Your task to perform on an android device: open device folders in google photos Image 0: 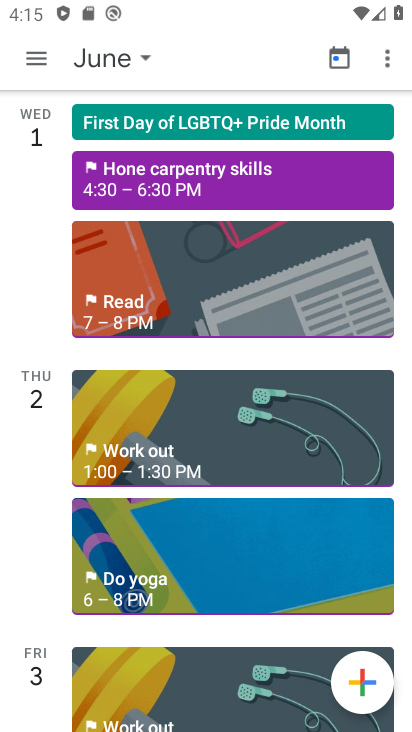
Step 0: press back button
Your task to perform on an android device: open device folders in google photos Image 1: 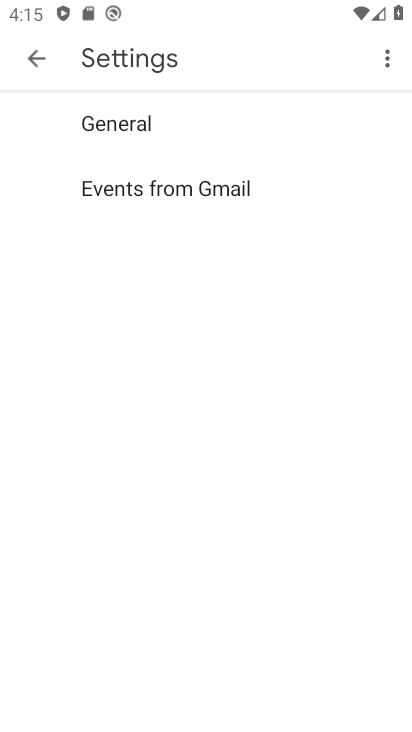
Step 1: press back button
Your task to perform on an android device: open device folders in google photos Image 2: 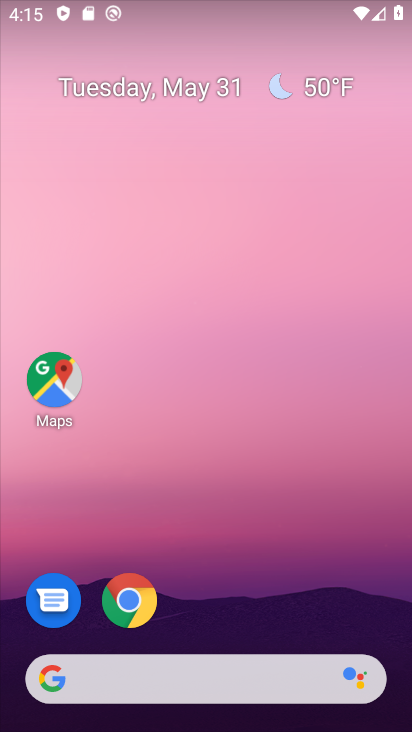
Step 2: drag from (252, 587) to (205, 123)
Your task to perform on an android device: open device folders in google photos Image 3: 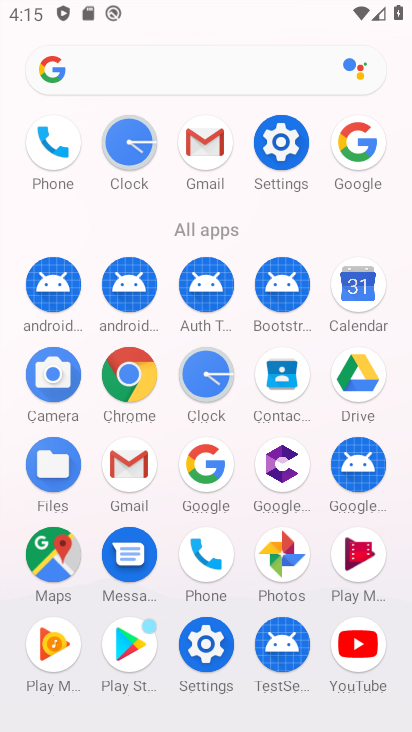
Step 3: click (283, 552)
Your task to perform on an android device: open device folders in google photos Image 4: 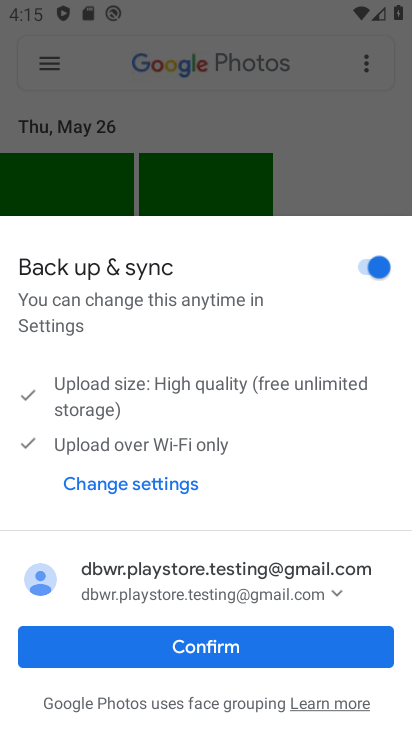
Step 4: click (201, 646)
Your task to perform on an android device: open device folders in google photos Image 5: 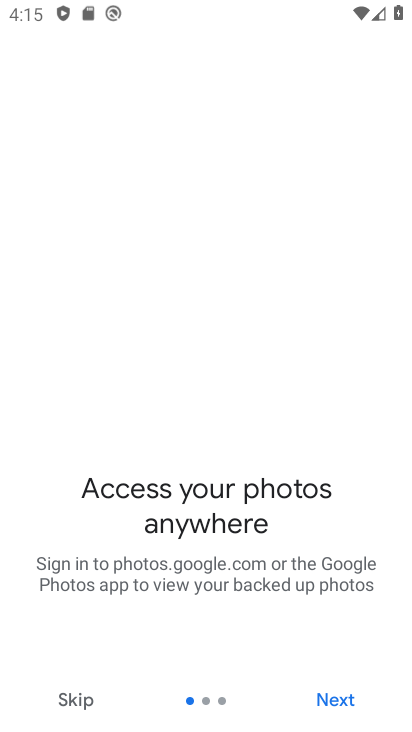
Step 5: click (343, 699)
Your task to perform on an android device: open device folders in google photos Image 6: 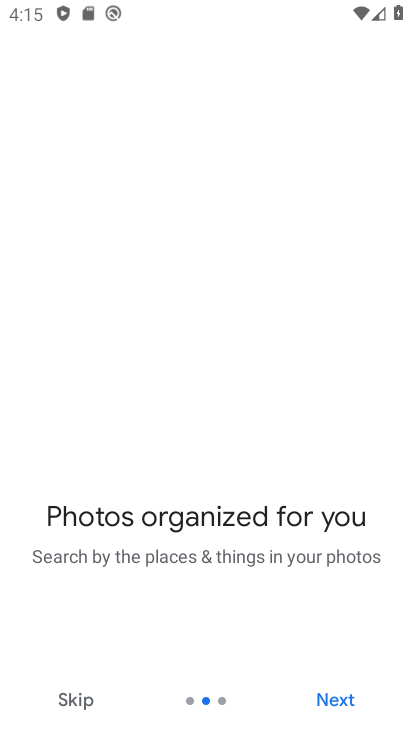
Step 6: click (343, 699)
Your task to perform on an android device: open device folders in google photos Image 7: 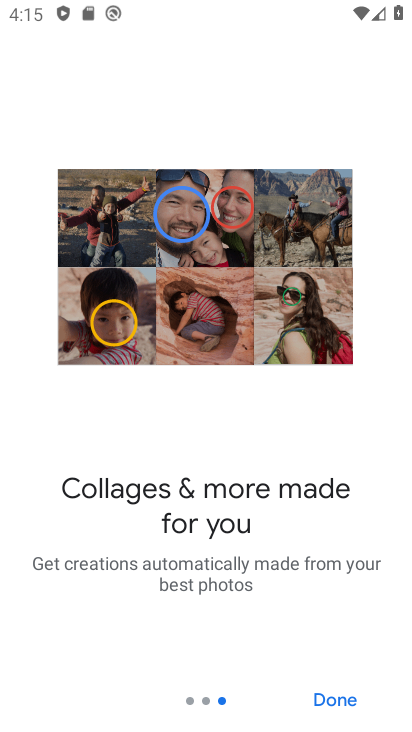
Step 7: click (343, 699)
Your task to perform on an android device: open device folders in google photos Image 8: 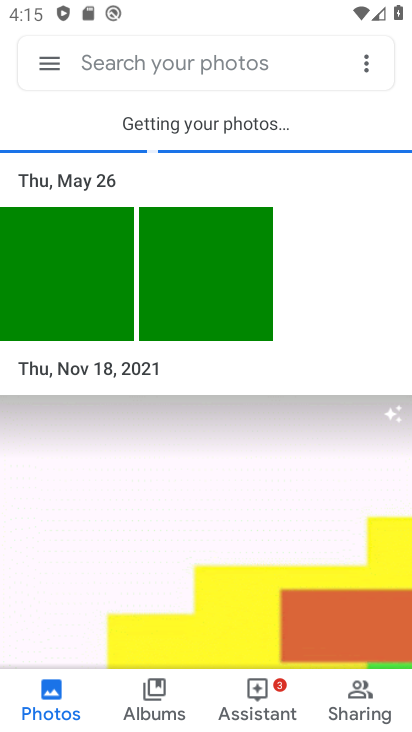
Step 8: click (46, 63)
Your task to perform on an android device: open device folders in google photos Image 9: 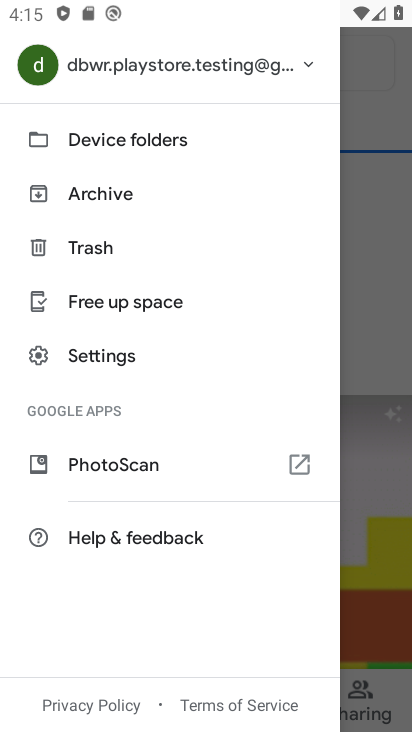
Step 9: click (156, 150)
Your task to perform on an android device: open device folders in google photos Image 10: 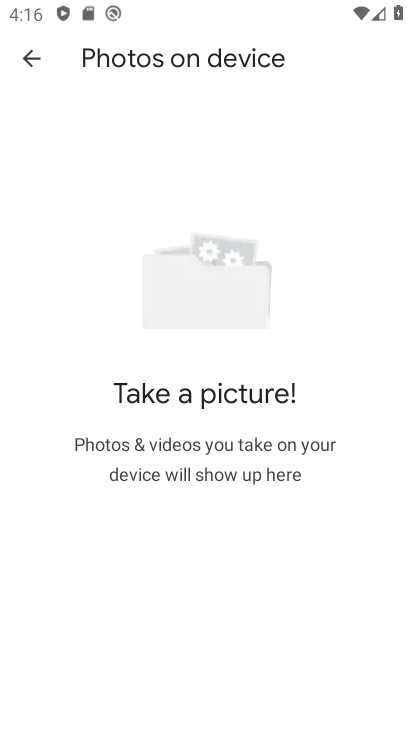
Step 10: task complete